Your task to perform on an android device: Check the weather Image 0: 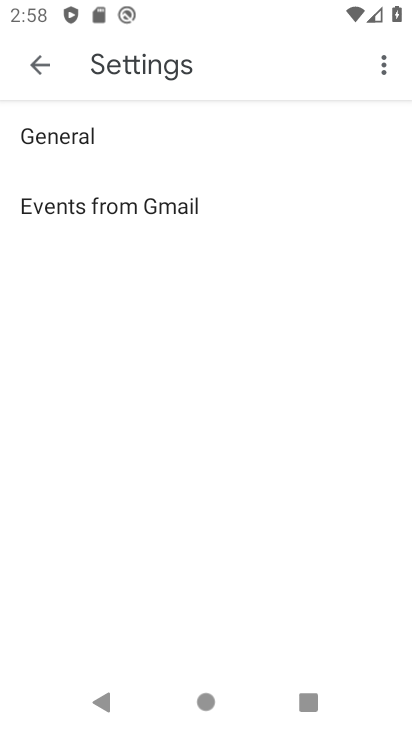
Step 0: press home button
Your task to perform on an android device: Check the weather Image 1: 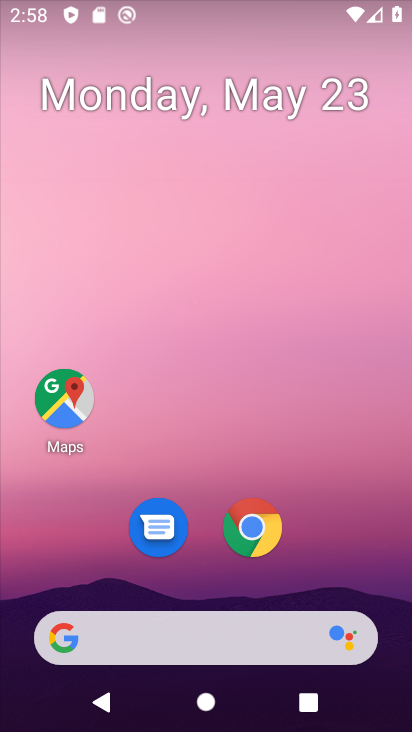
Step 1: drag from (228, 678) to (248, 132)
Your task to perform on an android device: Check the weather Image 2: 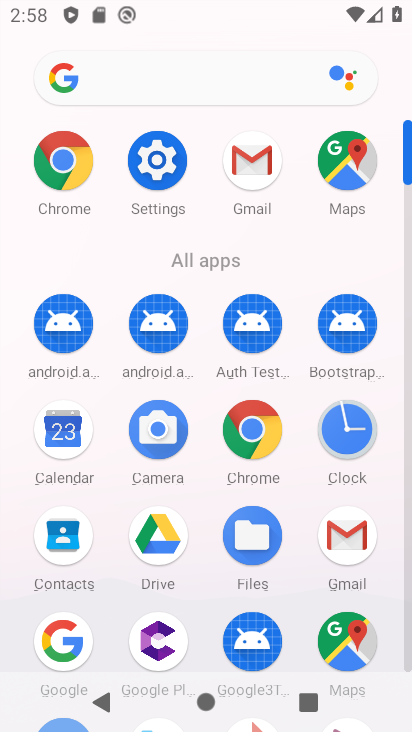
Step 2: click (167, 83)
Your task to perform on an android device: Check the weather Image 3: 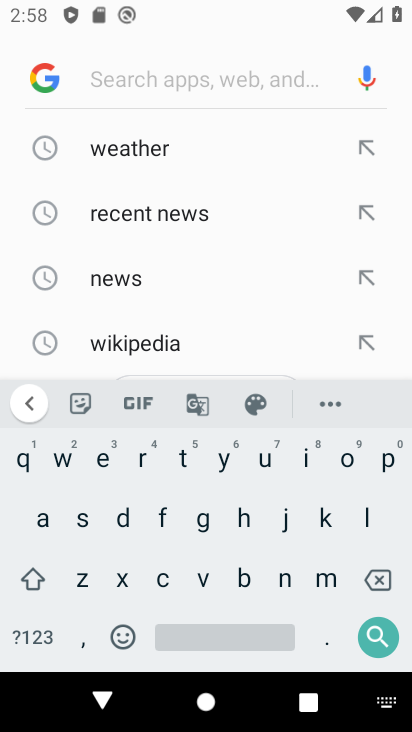
Step 3: click (142, 149)
Your task to perform on an android device: Check the weather Image 4: 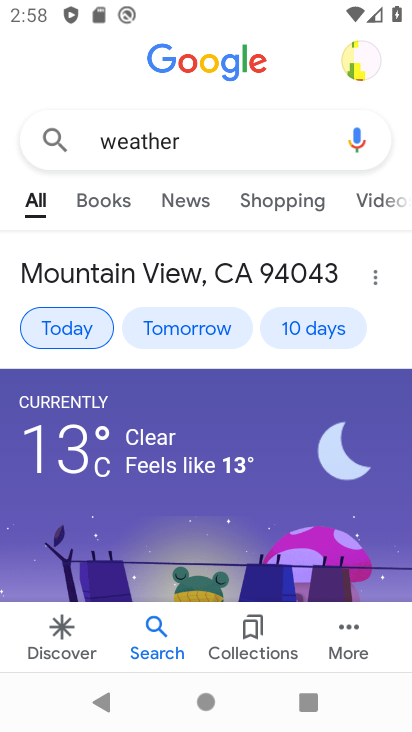
Step 4: task complete